Your task to perform on an android device: uninstall "Facebook Messenger" Image 0: 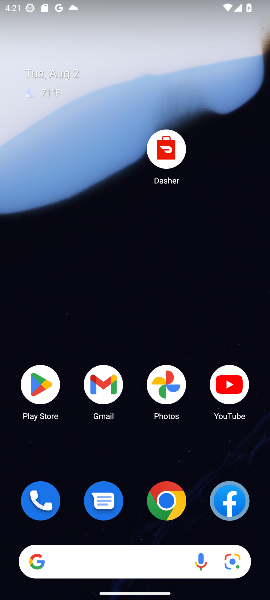
Step 0: click (41, 384)
Your task to perform on an android device: uninstall "Facebook Messenger" Image 1: 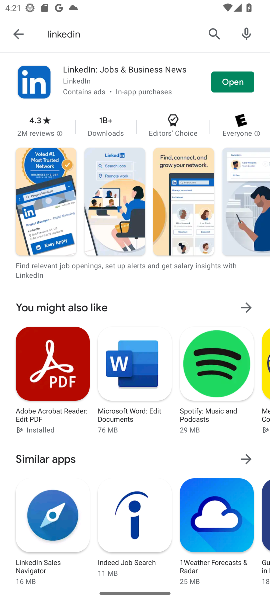
Step 1: click (215, 35)
Your task to perform on an android device: uninstall "Facebook Messenger" Image 2: 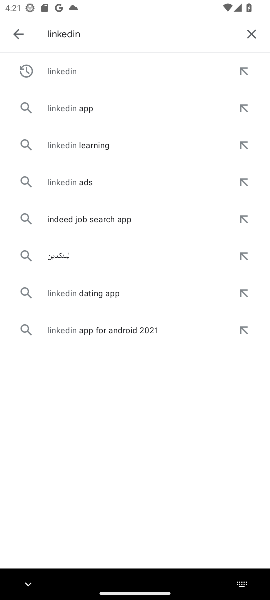
Step 2: click (247, 36)
Your task to perform on an android device: uninstall "Facebook Messenger" Image 3: 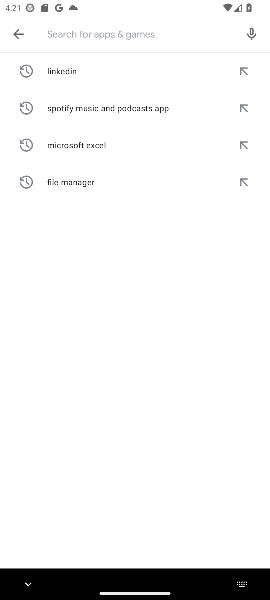
Step 3: type "Facebook Messenger"
Your task to perform on an android device: uninstall "Facebook Messenger" Image 4: 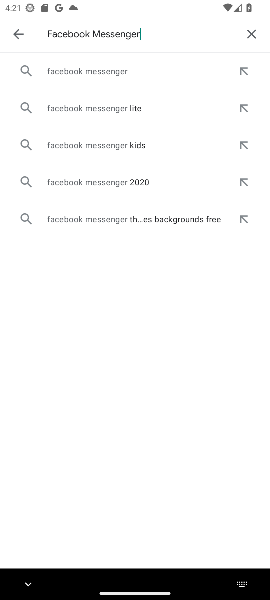
Step 4: click (87, 75)
Your task to perform on an android device: uninstall "Facebook Messenger" Image 5: 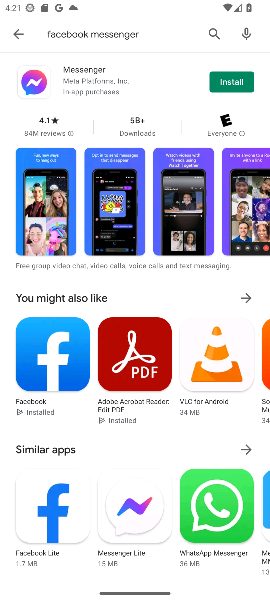
Step 5: task complete